Your task to perform on an android device: Go to internet settings Image 0: 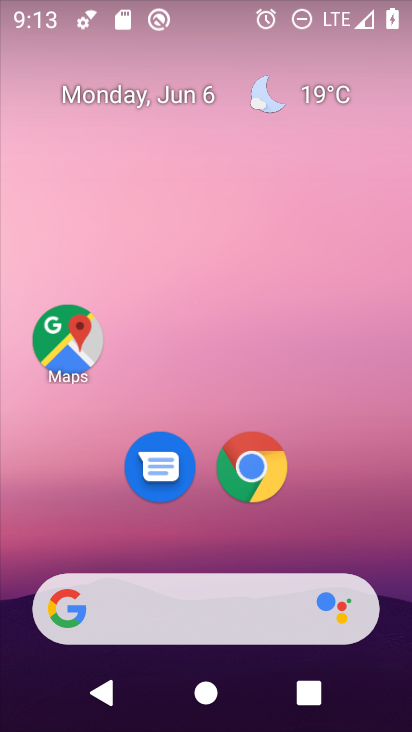
Step 0: drag from (369, 548) to (364, 177)
Your task to perform on an android device: Go to internet settings Image 1: 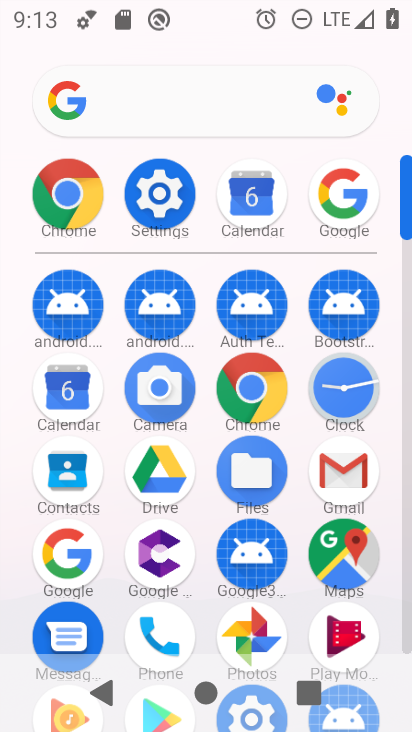
Step 1: click (166, 206)
Your task to perform on an android device: Go to internet settings Image 2: 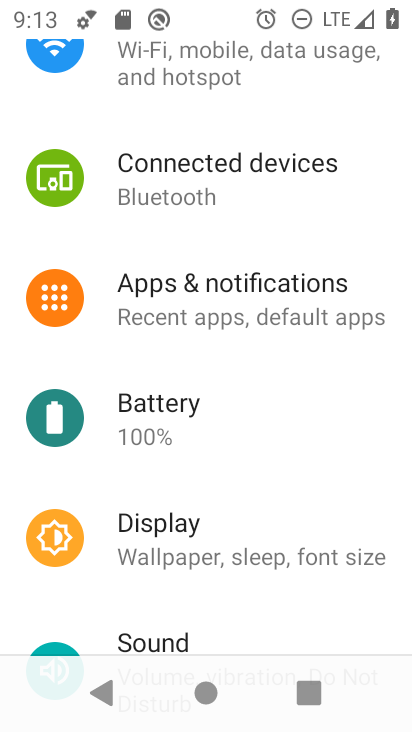
Step 2: drag from (374, 220) to (363, 418)
Your task to perform on an android device: Go to internet settings Image 3: 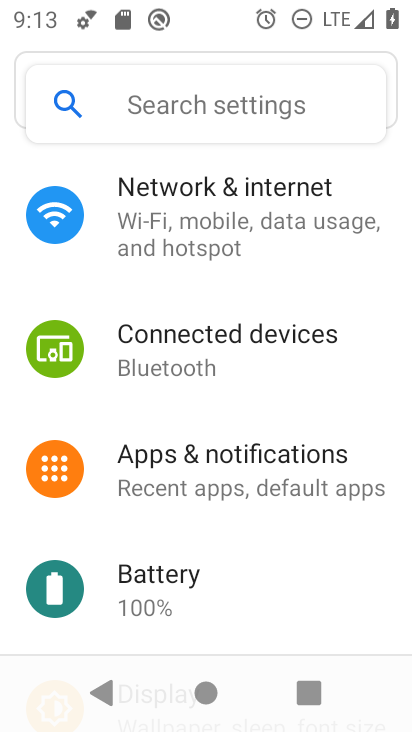
Step 3: drag from (366, 258) to (369, 398)
Your task to perform on an android device: Go to internet settings Image 4: 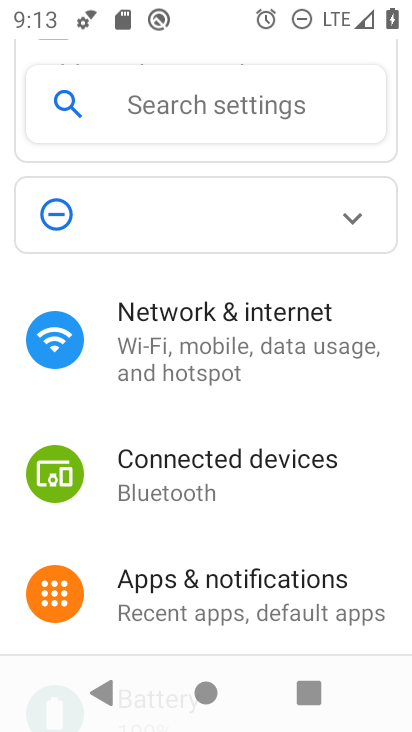
Step 4: click (261, 341)
Your task to perform on an android device: Go to internet settings Image 5: 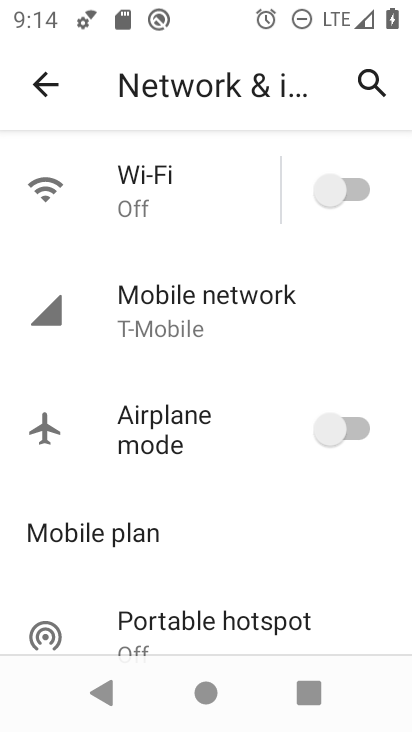
Step 5: task complete